Your task to perform on an android device: Search for Mexican restaurants on Maps Image 0: 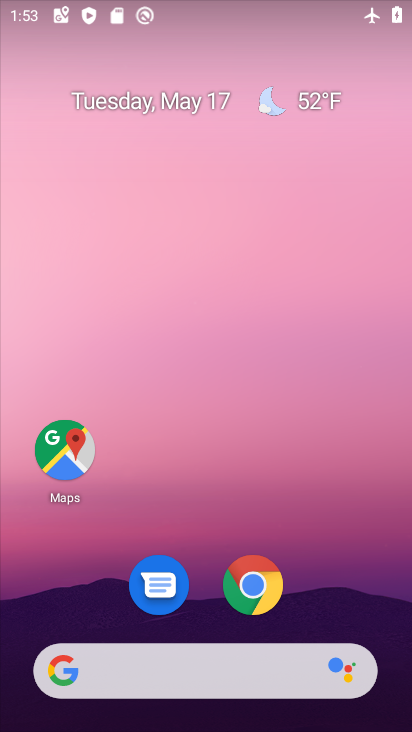
Step 0: click (78, 446)
Your task to perform on an android device: Search for Mexican restaurants on Maps Image 1: 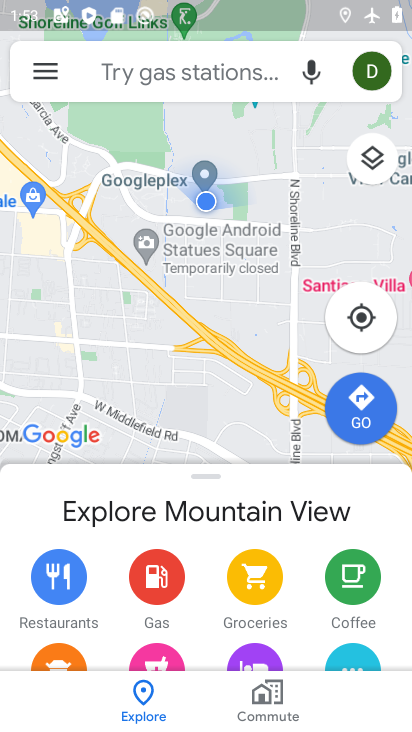
Step 1: click (236, 73)
Your task to perform on an android device: Search for Mexican restaurants on Maps Image 2: 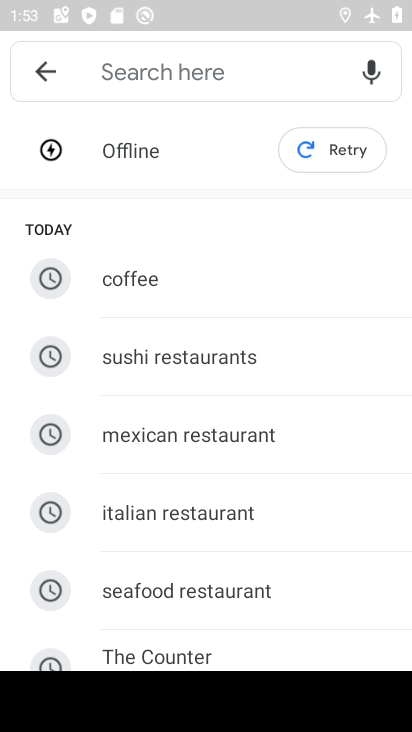
Step 2: click (191, 428)
Your task to perform on an android device: Search for Mexican restaurants on Maps Image 3: 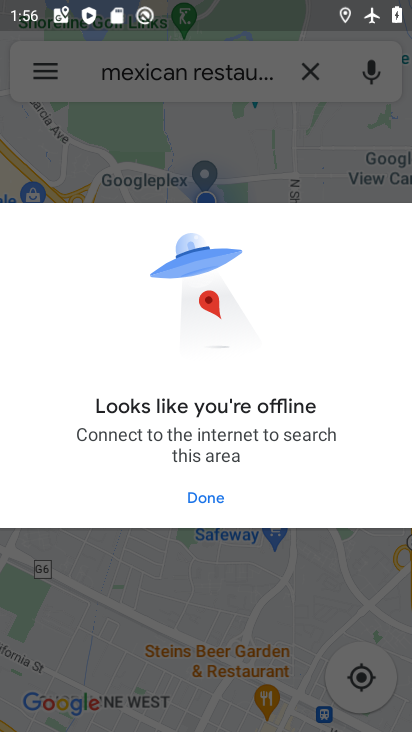
Step 3: task complete